Your task to perform on an android device: Go to Google maps Image 0: 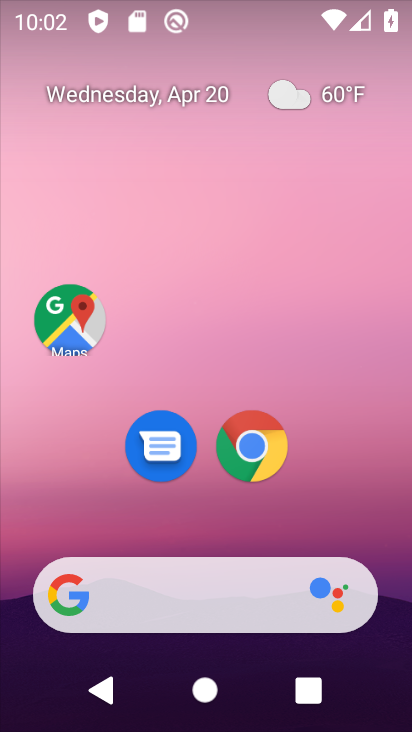
Step 0: drag from (378, 498) to (199, 28)
Your task to perform on an android device: Go to Google maps Image 1: 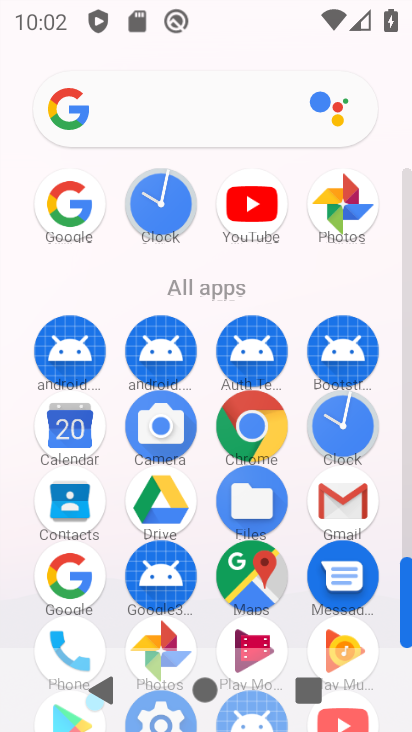
Step 1: click (255, 572)
Your task to perform on an android device: Go to Google maps Image 2: 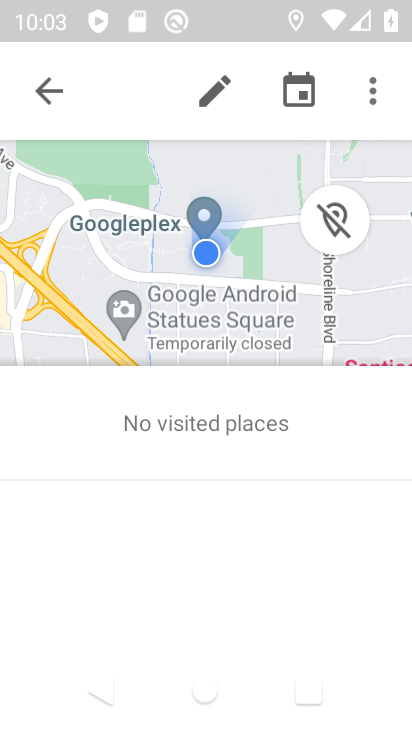
Step 2: click (43, 86)
Your task to perform on an android device: Go to Google maps Image 3: 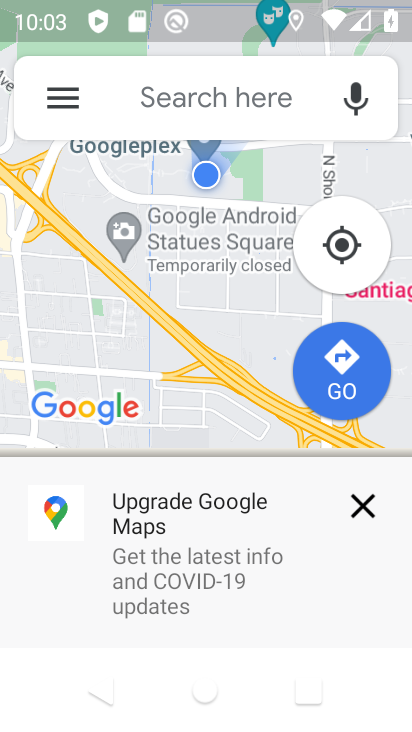
Step 3: click (363, 512)
Your task to perform on an android device: Go to Google maps Image 4: 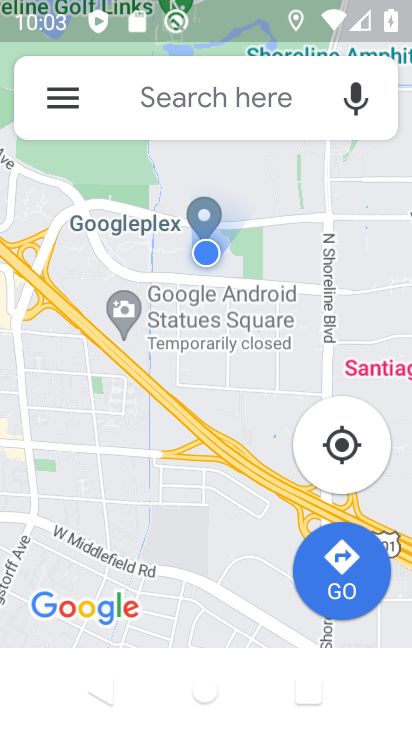
Step 4: task complete